Your task to perform on an android device: toggle location history Image 0: 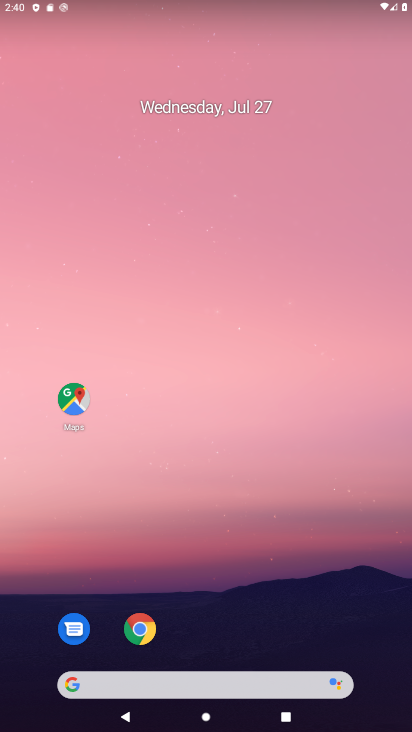
Step 0: drag from (282, 531) to (313, 202)
Your task to perform on an android device: toggle location history Image 1: 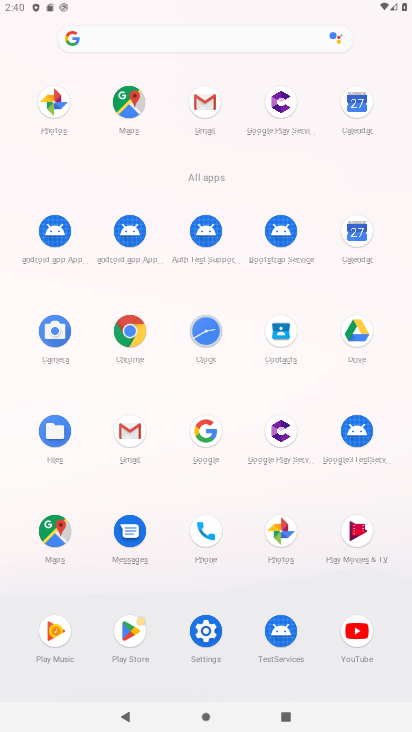
Step 1: click (210, 639)
Your task to perform on an android device: toggle location history Image 2: 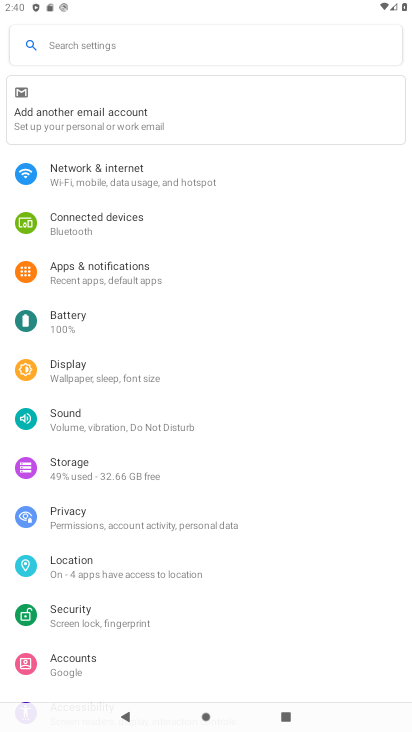
Step 2: click (88, 567)
Your task to perform on an android device: toggle location history Image 3: 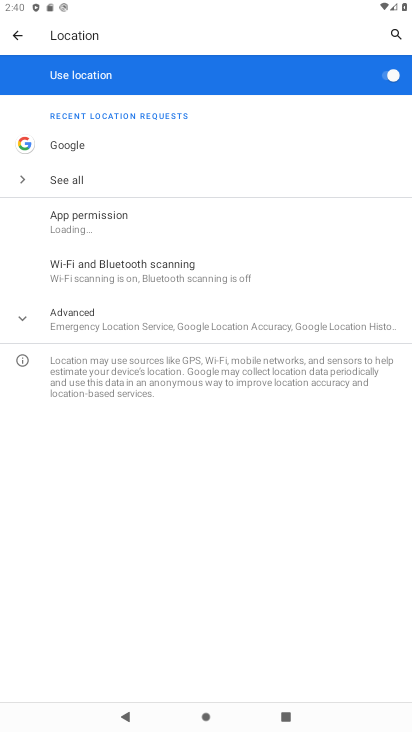
Step 3: task complete